Your task to perform on an android device: turn on translation in the chrome app Image 0: 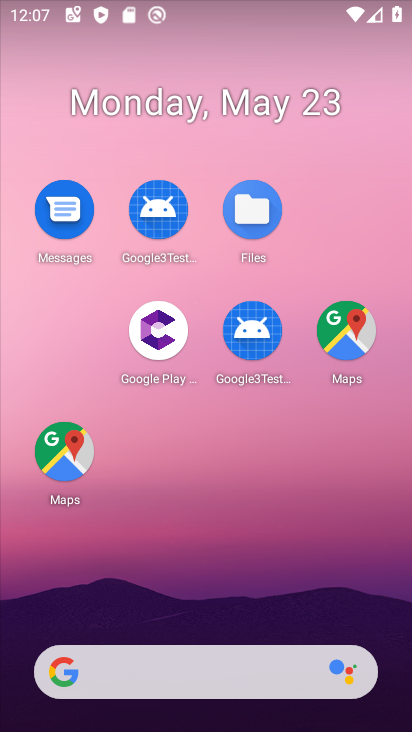
Step 0: drag from (218, 614) to (222, 114)
Your task to perform on an android device: turn on translation in the chrome app Image 1: 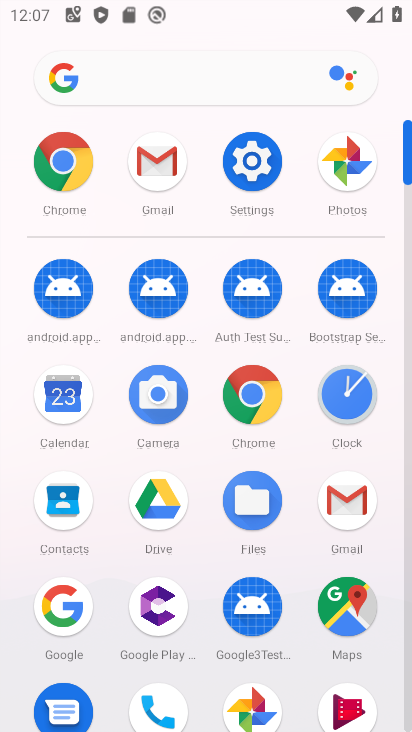
Step 1: click (238, 376)
Your task to perform on an android device: turn on translation in the chrome app Image 2: 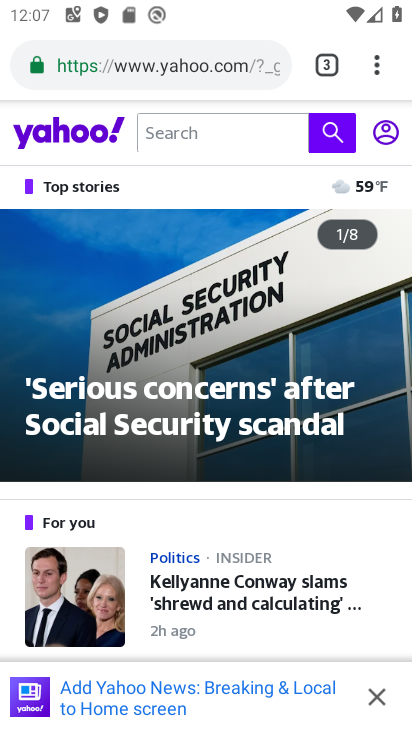
Step 2: click (374, 67)
Your task to perform on an android device: turn on translation in the chrome app Image 3: 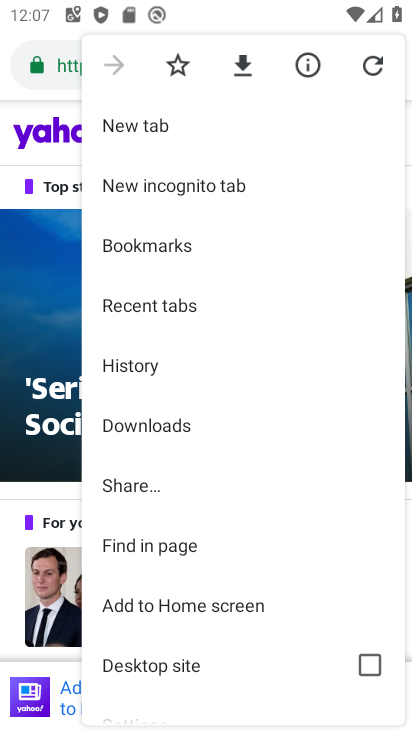
Step 3: drag from (233, 625) to (187, 252)
Your task to perform on an android device: turn on translation in the chrome app Image 4: 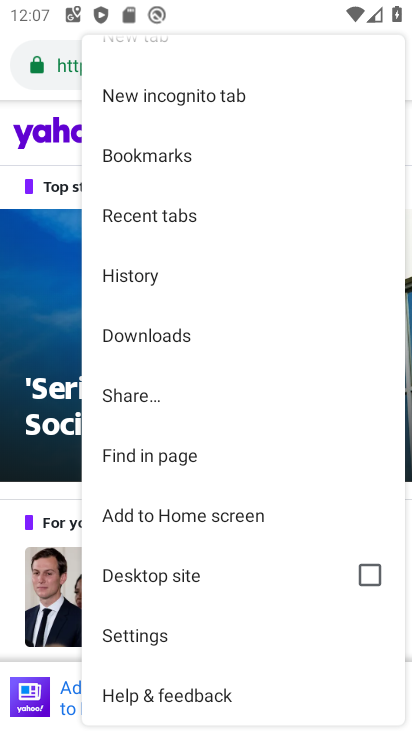
Step 4: click (162, 637)
Your task to perform on an android device: turn on translation in the chrome app Image 5: 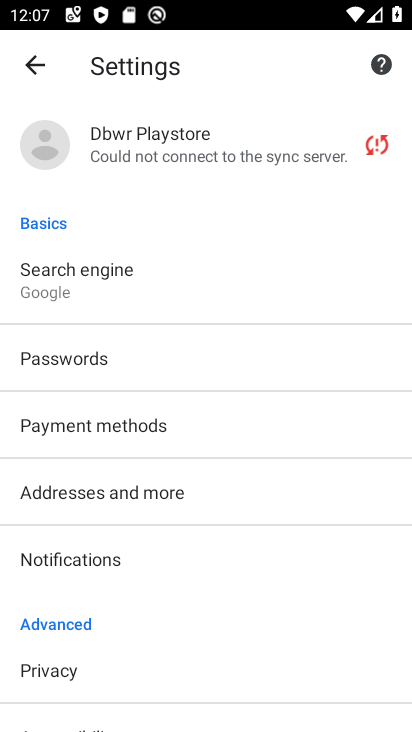
Step 5: drag from (143, 571) to (48, 236)
Your task to perform on an android device: turn on translation in the chrome app Image 6: 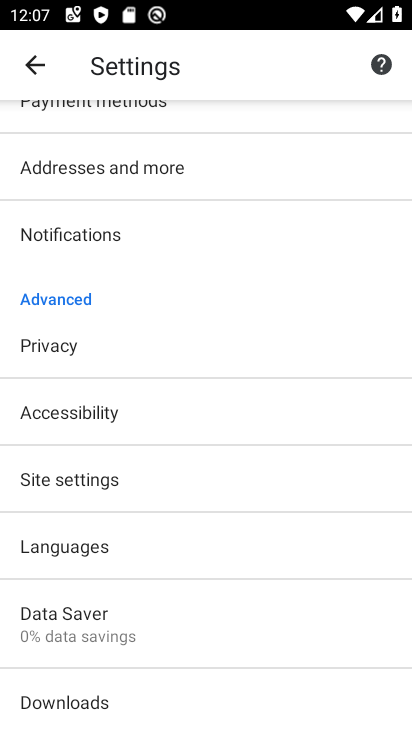
Step 6: click (136, 549)
Your task to perform on an android device: turn on translation in the chrome app Image 7: 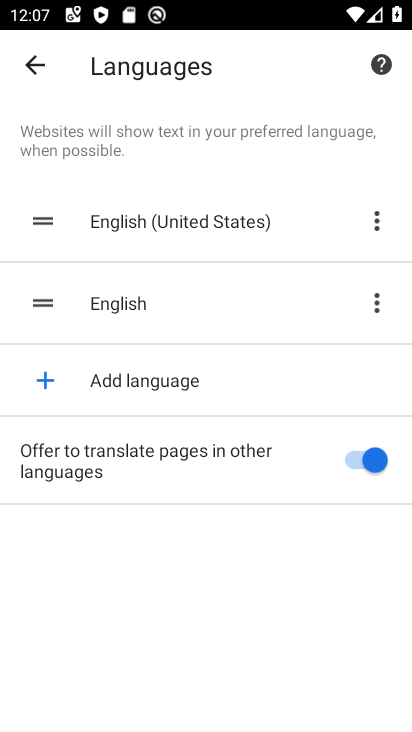
Step 7: task complete